Your task to perform on an android device: toggle improve location accuracy Image 0: 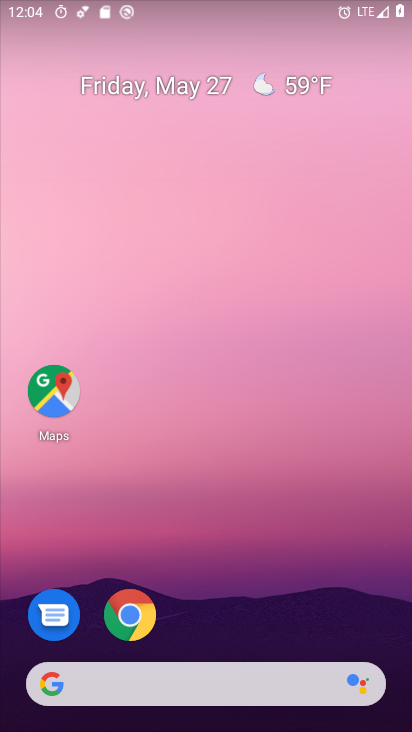
Step 0: drag from (259, 665) to (161, 291)
Your task to perform on an android device: toggle improve location accuracy Image 1: 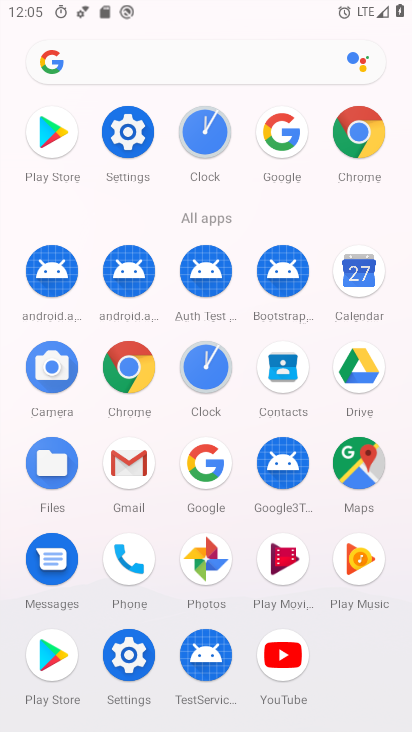
Step 1: click (344, 655)
Your task to perform on an android device: toggle improve location accuracy Image 2: 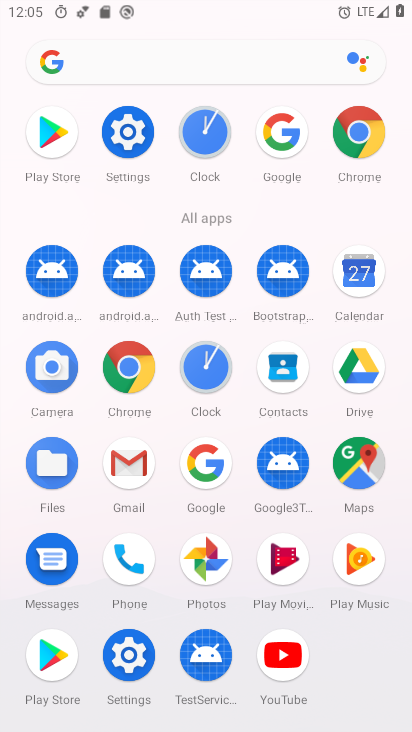
Step 2: click (129, 652)
Your task to perform on an android device: toggle improve location accuracy Image 3: 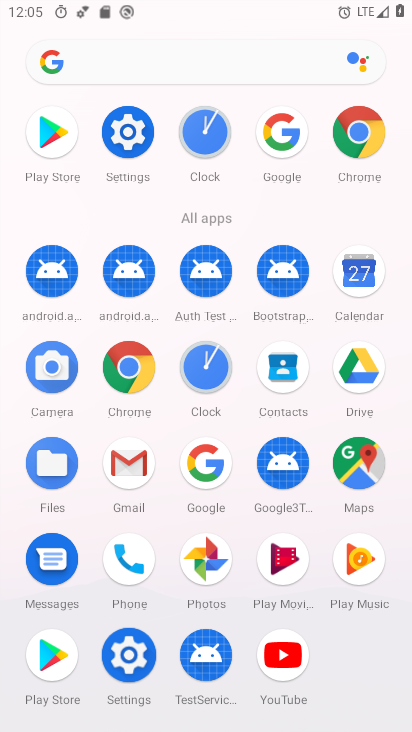
Step 3: click (137, 647)
Your task to perform on an android device: toggle improve location accuracy Image 4: 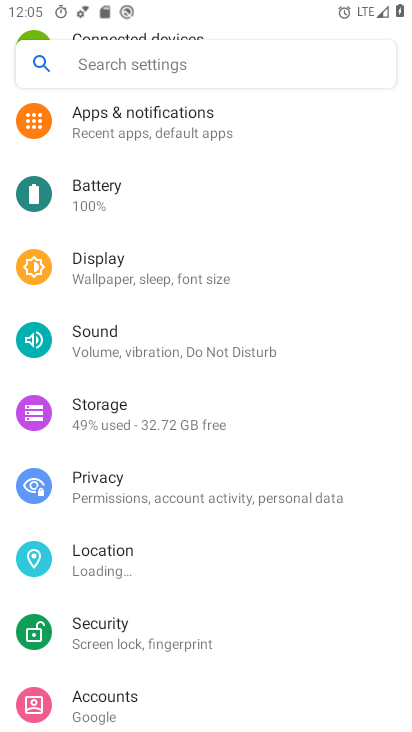
Step 4: click (117, 533)
Your task to perform on an android device: toggle improve location accuracy Image 5: 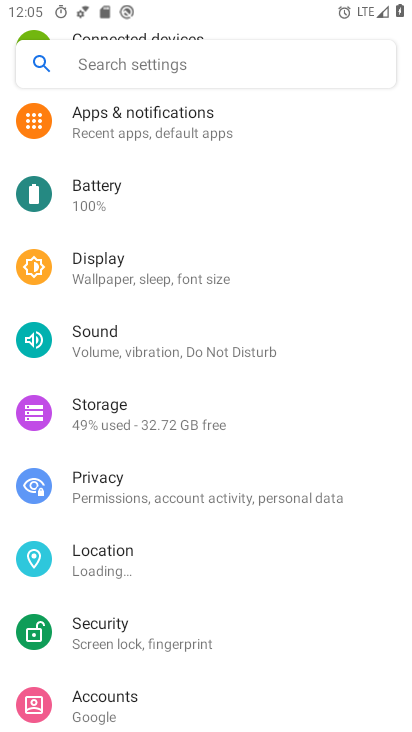
Step 5: click (117, 533)
Your task to perform on an android device: toggle improve location accuracy Image 6: 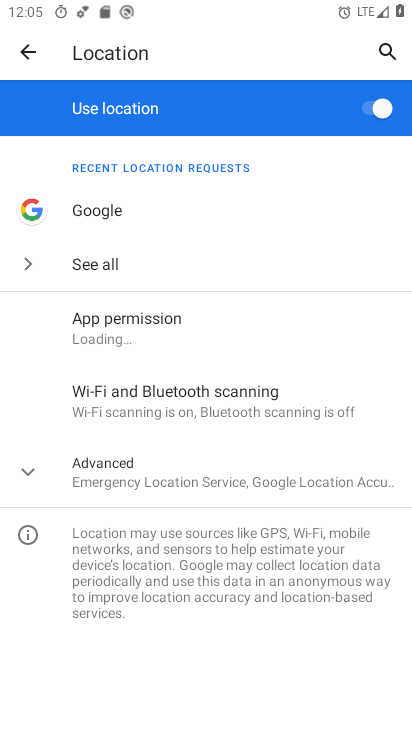
Step 6: click (170, 478)
Your task to perform on an android device: toggle improve location accuracy Image 7: 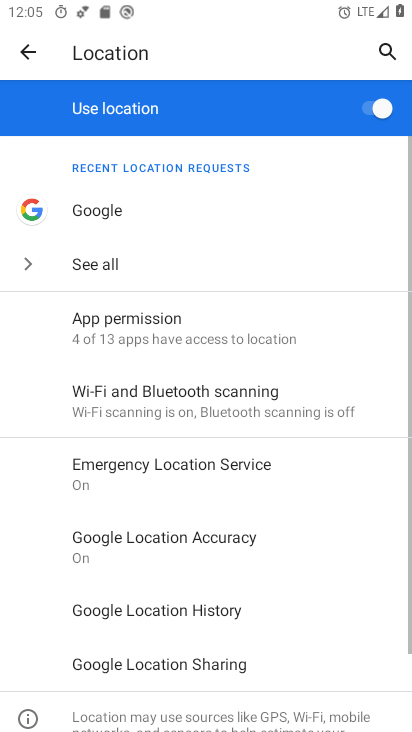
Step 7: click (133, 526)
Your task to perform on an android device: toggle improve location accuracy Image 8: 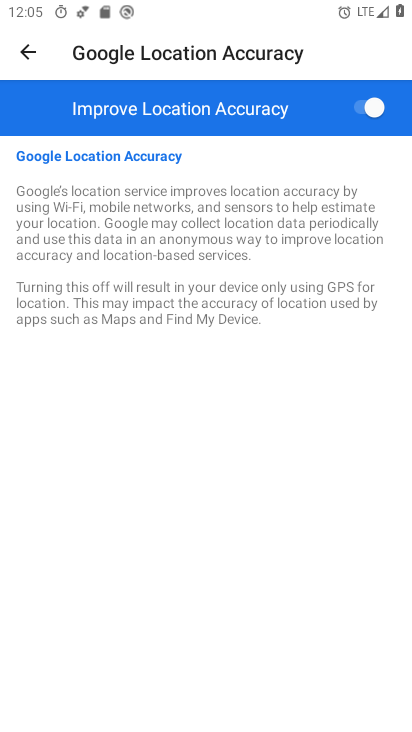
Step 8: click (371, 111)
Your task to perform on an android device: toggle improve location accuracy Image 9: 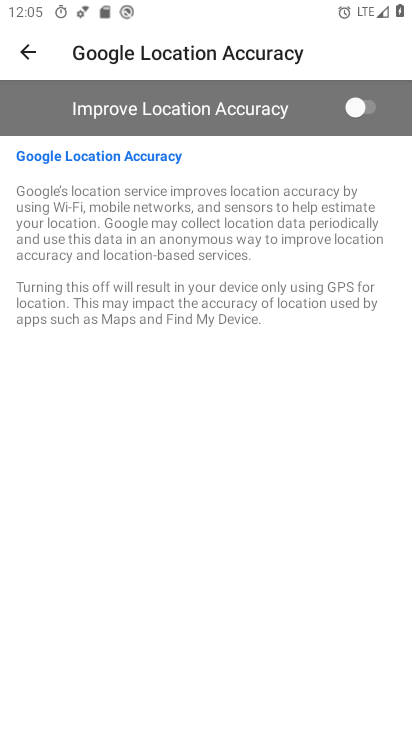
Step 9: task complete